Your task to perform on an android device: Open the map Image 0: 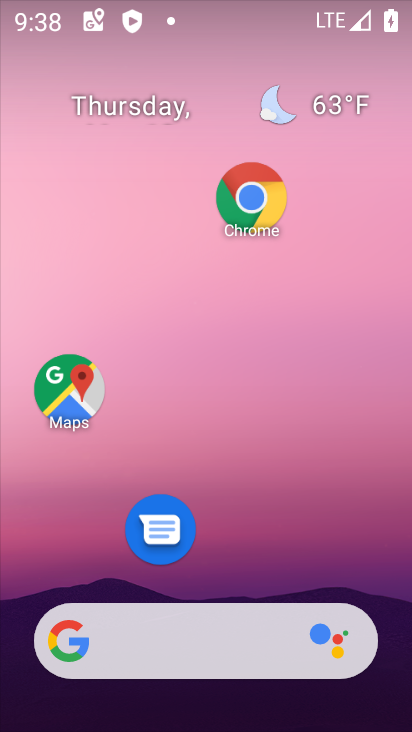
Step 0: drag from (223, 646) to (282, 213)
Your task to perform on an android device: Open the map Image 1: 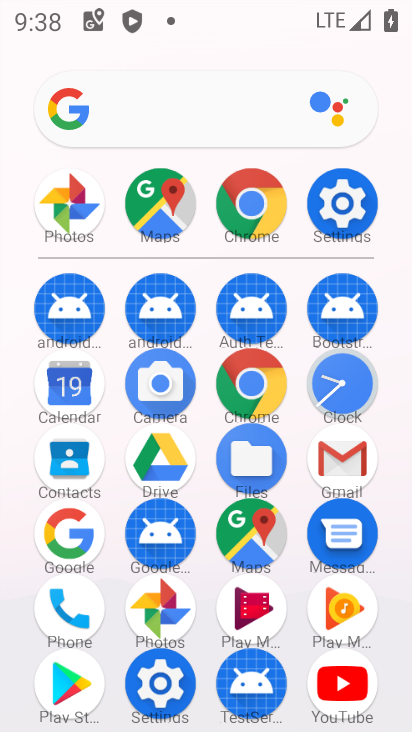
Step 1: click (145, 227)
Your task to perform on an android device: Open the map Image 2: 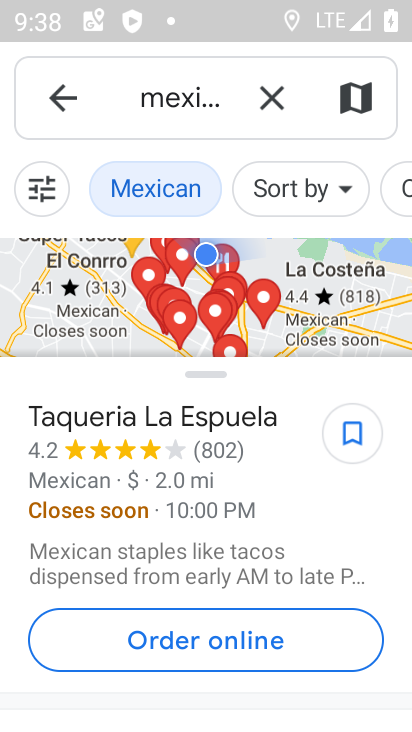
Step 2: task complete